Your task to perform on an android device: add a contact Image 0: 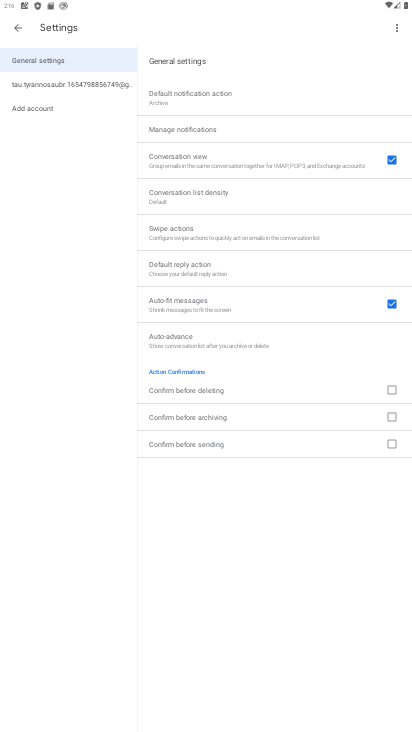
Step 0: press home button
Your task to perform on an android device: add a contact Image 1: 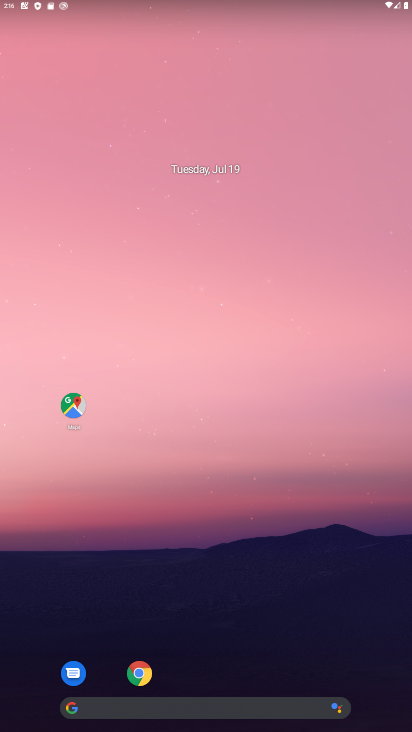
Step 1: drag from (204, 714) to (162, 219)
Your task to perform on an android device: add a contact Image 2: 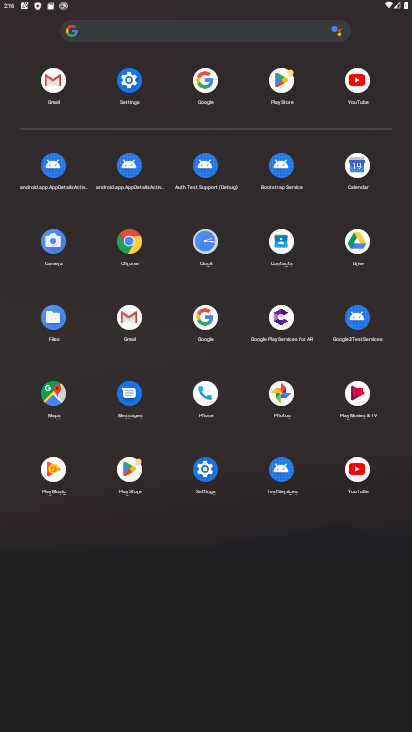
Step 2: click (281, 240)
Your task to perform on an android device: add a contact Image 3: 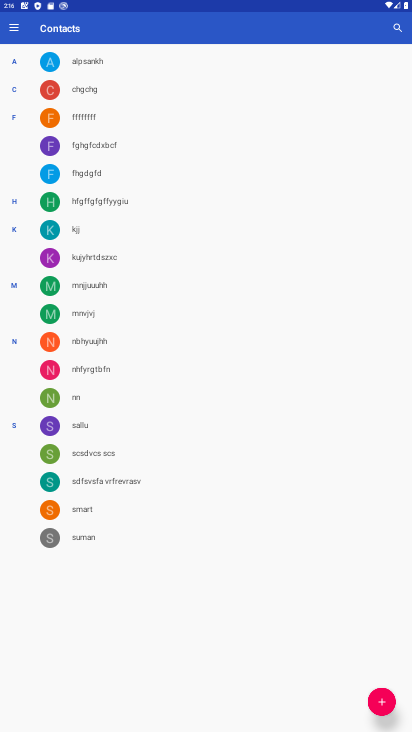
Step 3: click (381, 702)
Your task to perform on an android device: add a contact Image 4: 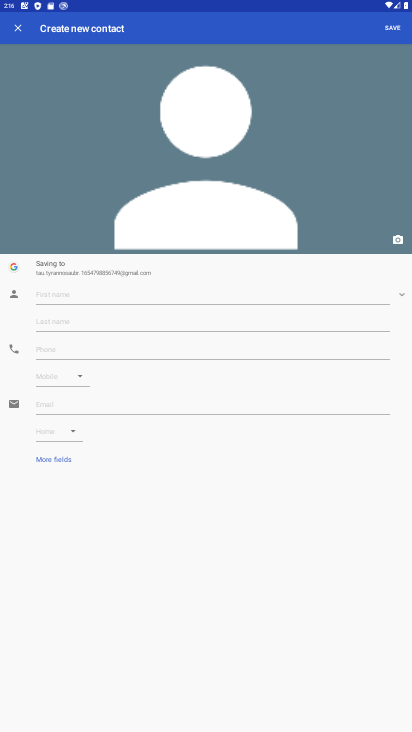
Step 4: click (178, 294)
Your task to perform on an android device: add a contact Image 5: 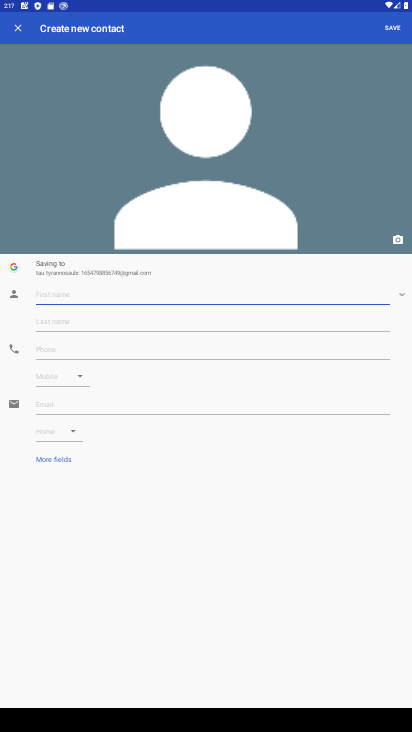
Step 5: type "Amitabh"
Your task to perform on an android device: add a contact Image 6: 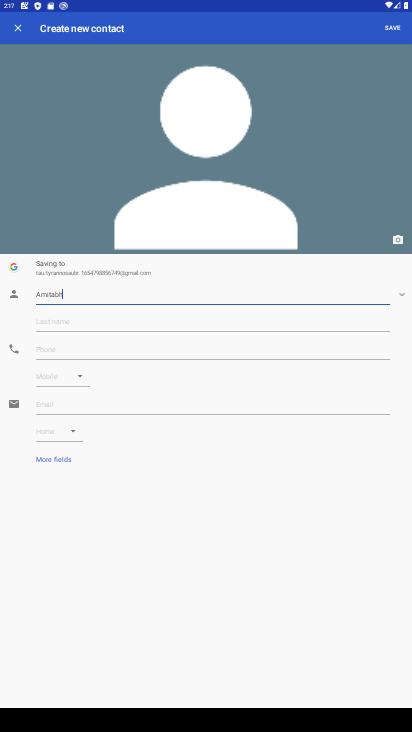
Step 6: click (188, 320)
Your task to perform on an android device: add a contact Image 7: 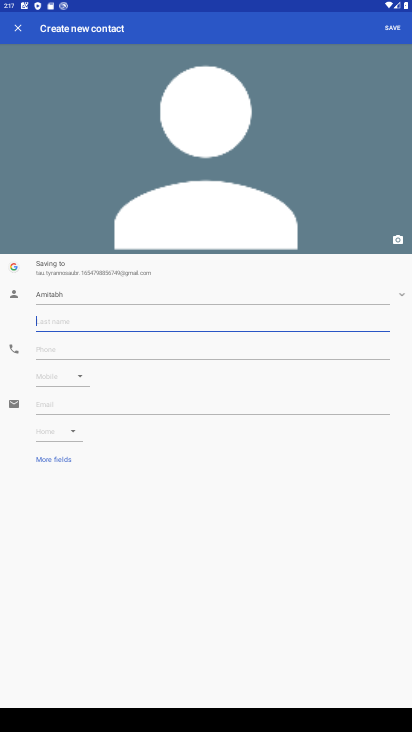
Step 7: type "Bacchhan"
Your task to perform on an android device: add a contact Image 8: 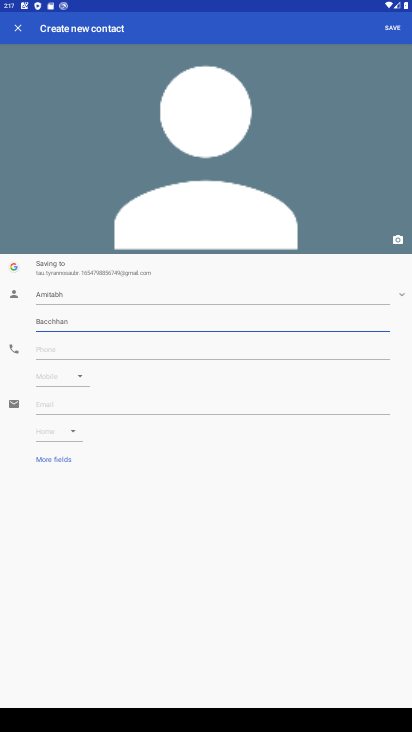
Step 8: click (114, 351)
Your task to perform on an android device: add a contact Image 9: 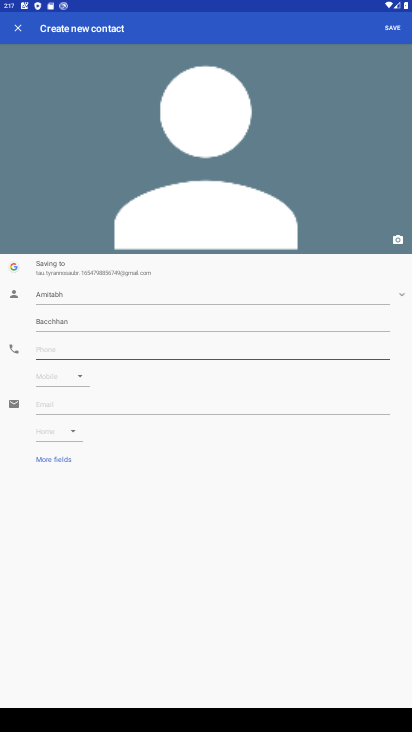
Step 9: type "0987654321"
Your task to perform on an android device: add a contact Image 10: 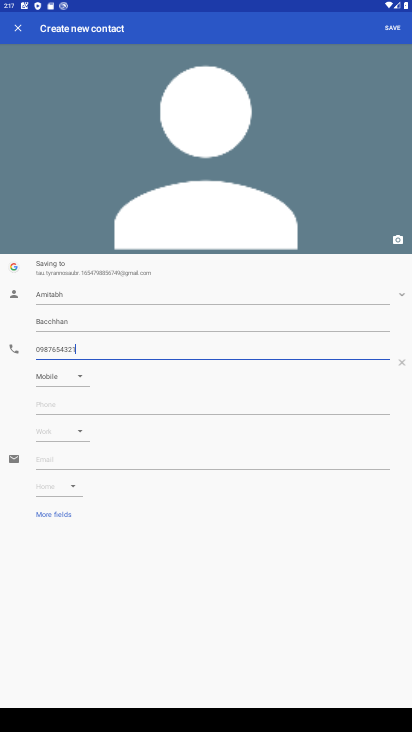
Step 10: click (393, 29)
Your task to perform on an android device: add a contact Image 11: 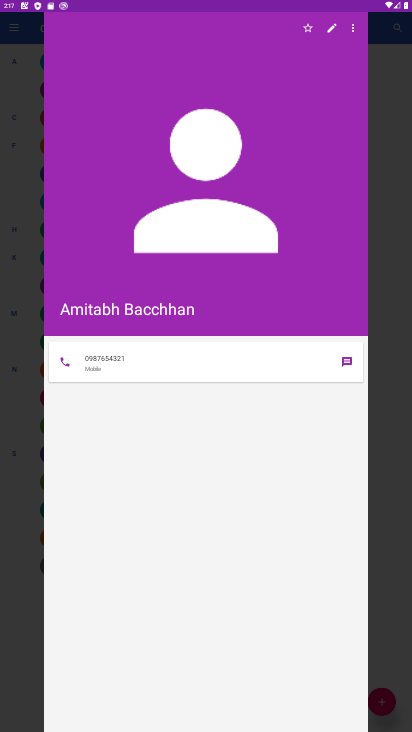
Step 11: task complete